Your task to perform on an android device: Open wifi settings Image 0: 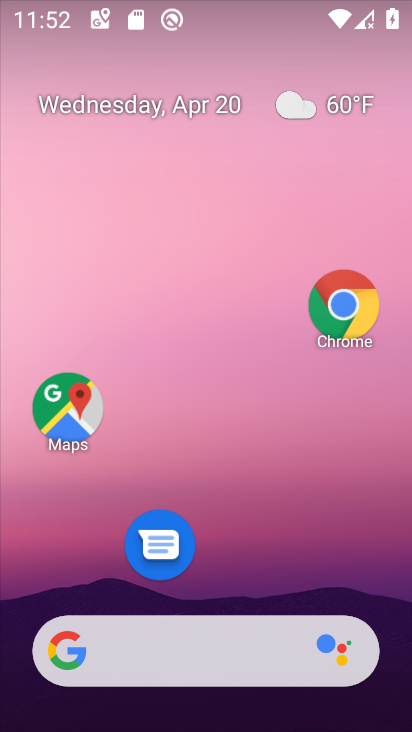
Step 0: drag from (221, 595) to (219, 142)
Your task to perform on an android device: Open wifi settings Image 1: 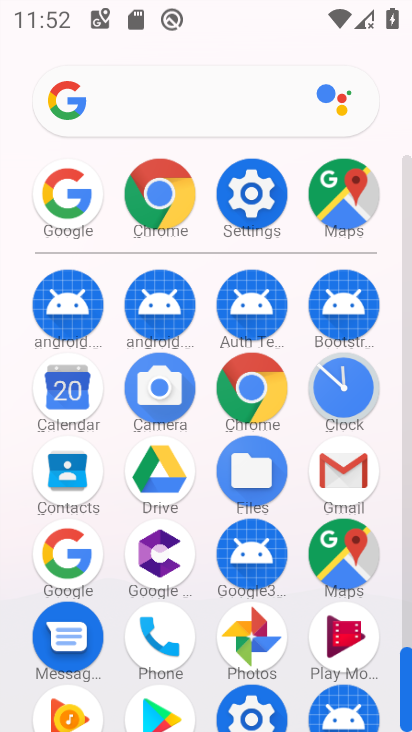
Step 1: click (248, 212)
Your task to perform on an android device: Open wifi settings Image 2: 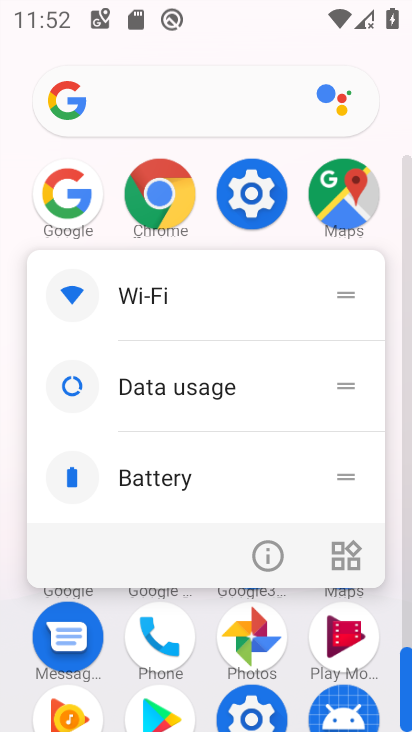
Step 2: click (260, 200)
Your task to perform on an android device: Open wifi settings Image 3: 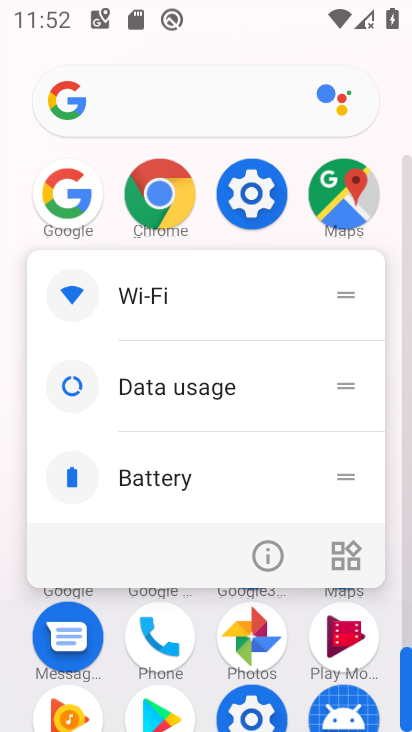
Step 3: click (239, 197)
Your task to perform on an android device: Open wifi settings Image 4: 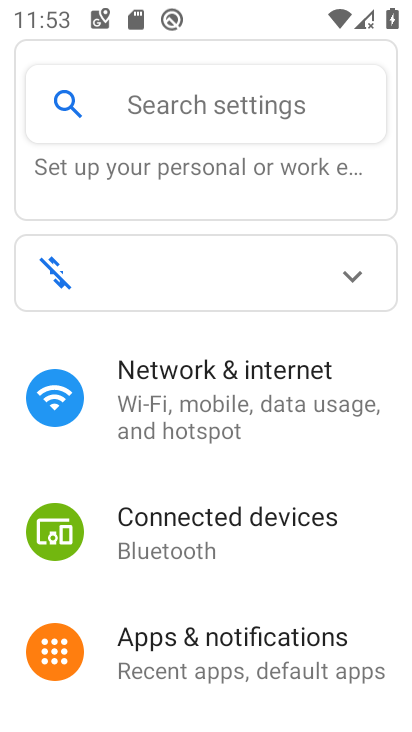
Step 4: click (195, 398)
Your task to perform on an android device: Open wifi settings Image 5: 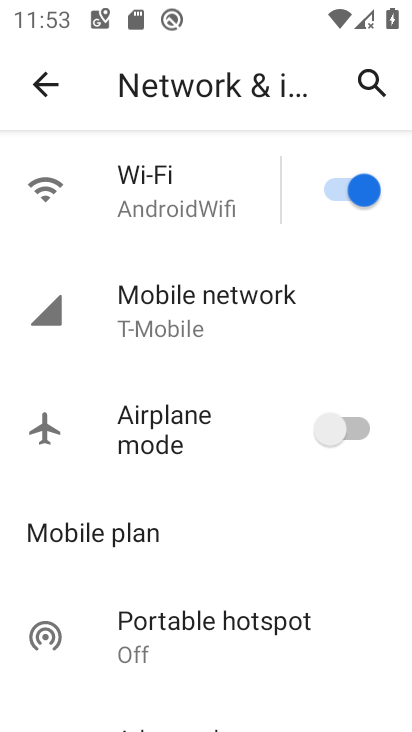
Step 5: click (163, 200)
Your task to perform on an android device: Open wifi settings Image 6: 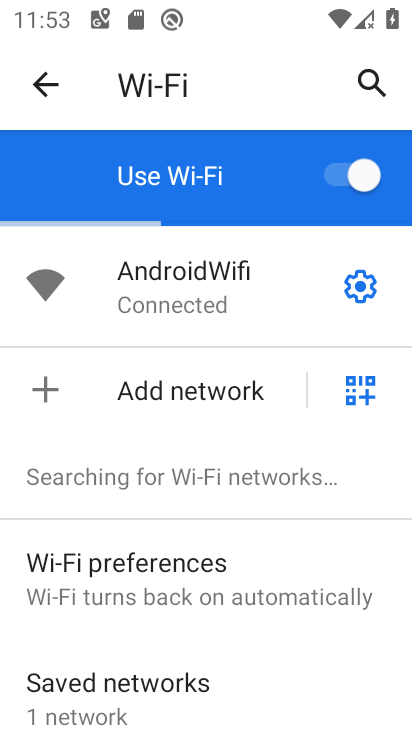
Step 6: task complete